Your task to perform on an android device: Open Youtube and go to "Your channel" Image 0: 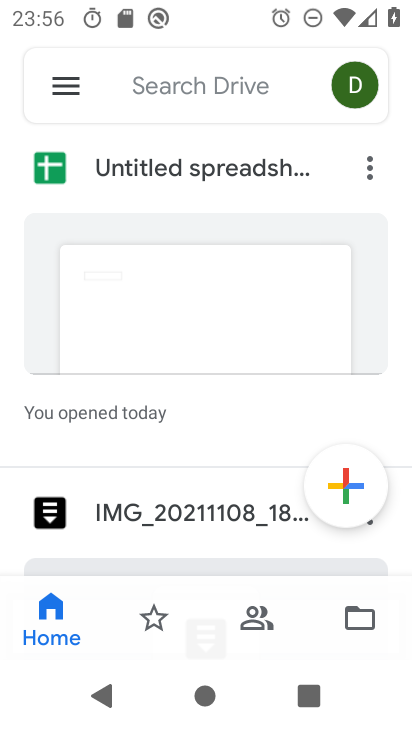
Step 0: press home button
Your task to perform on an android device: Open Youtube and go to "Your channel" Image 1: 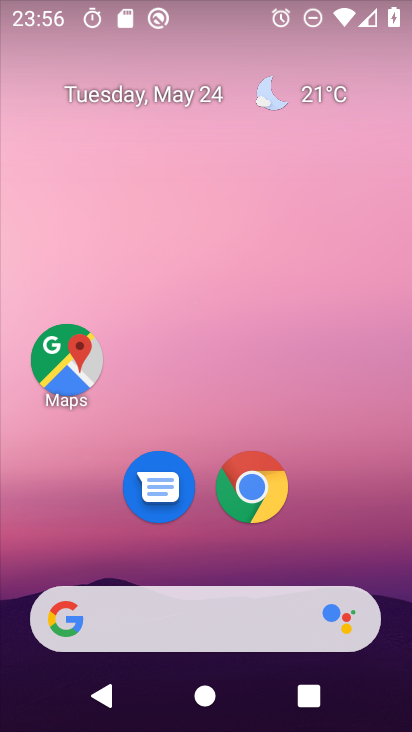
Step 1: drag from (374, 594) to (375, 15)
Your task to perform on an android device: Open Youtube and go to "Your channel" Image 2: 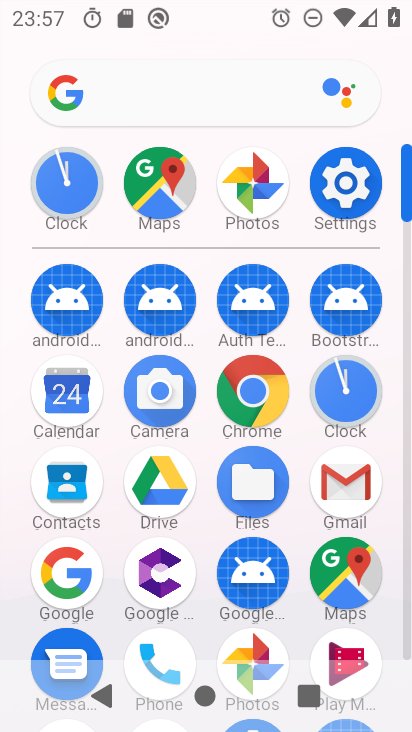
Step 2: click (406, 392)
Your task to perform on an android device: Open Youtube and go to "Your channel" Image 3: 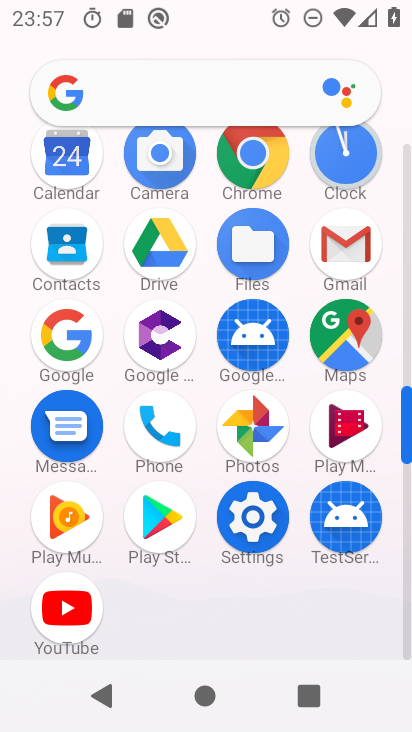
Step 3: click (88, 603)
Your task to perform on an android device: Open Youtube and go to "Your channel" Image 4: 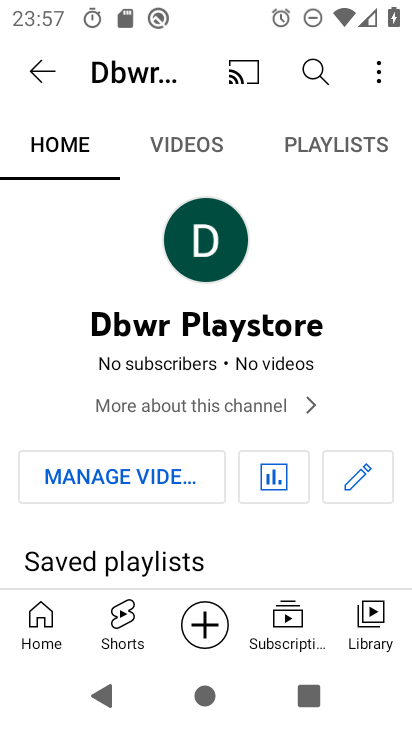
Step 4: click (378, 71)
Your task to perform on an android device: Open Youtube and go to "Your channel" Image 5: 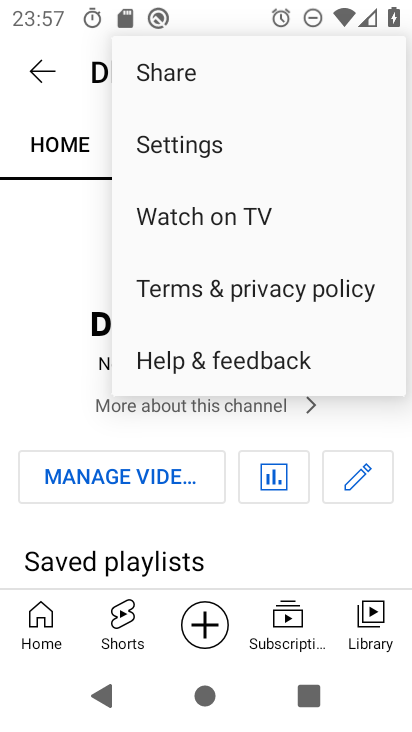
Step 5: click (38, 77)
Your task to perform on an android device: Open Youtube and go to "Your channel" Image 6: 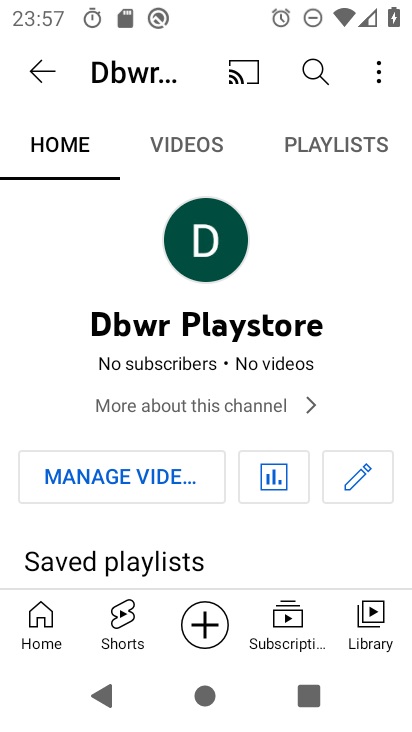
Step 6: task complete